Your task to perform on an android device: change the clock display to analog Image 0: 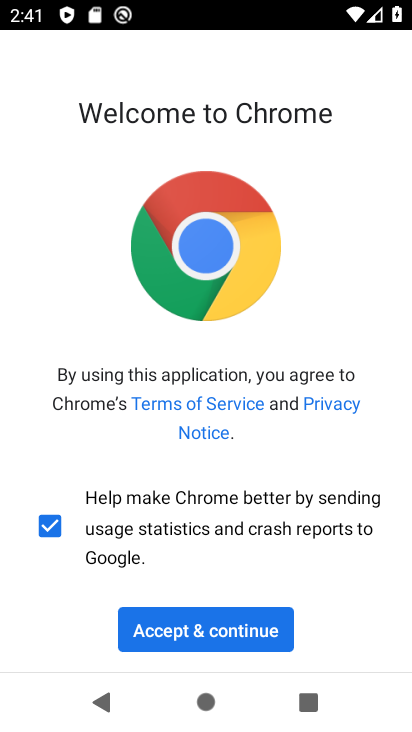
Step 0: click (257, 641)
Your task to perform on an android device: change the clock display to analog Image 1: 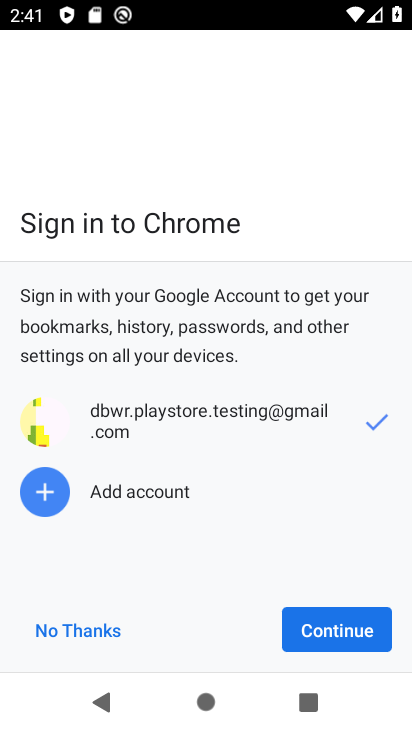
Step 1: press home button
Your task to perform on an android device: change the clock display to analog Image 2: 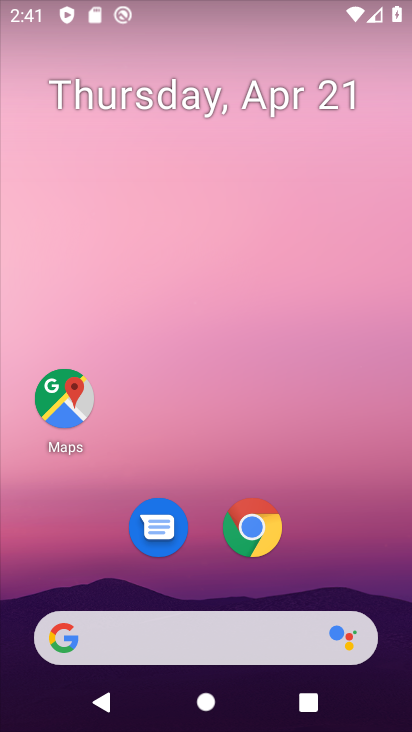
Step 2: drag from (322, 575) to (299, 149)
Your task to perform on an android device: change the clock display to analog Image 3: 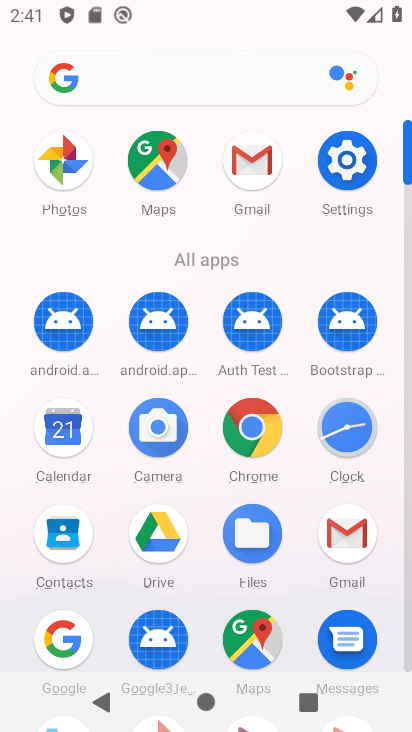
Step 3: click (364, 440)
Your task to perform on an android device: change the clock display to analog Image 4: 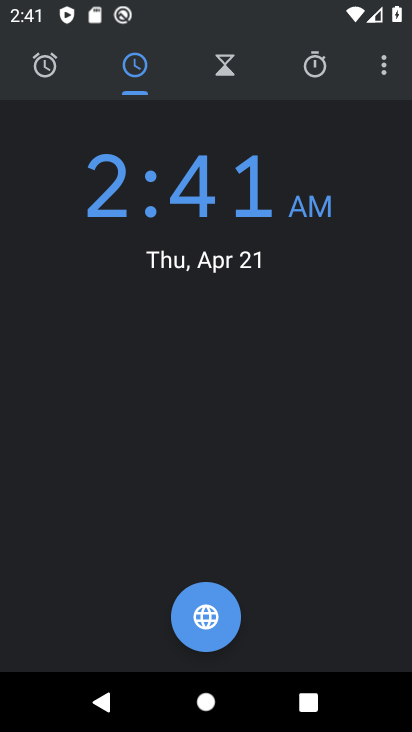
Step 4: click (383, 78)
Your task to perform on an android device: change the clock display to analog Image 5: 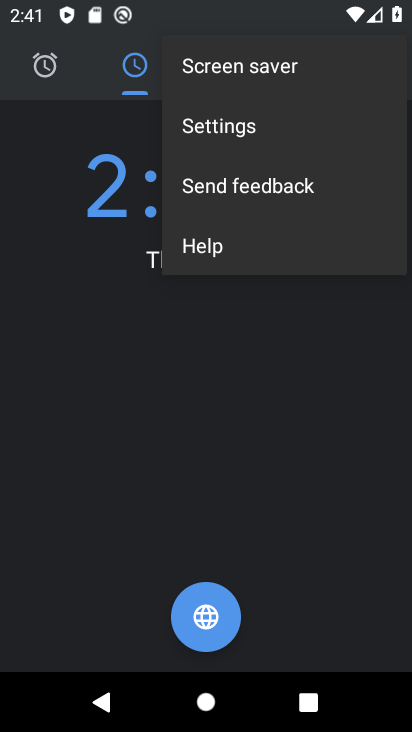
Step 5: click (318, 126)
Your task to perform on an android device: change the clock display to analog Image 6: 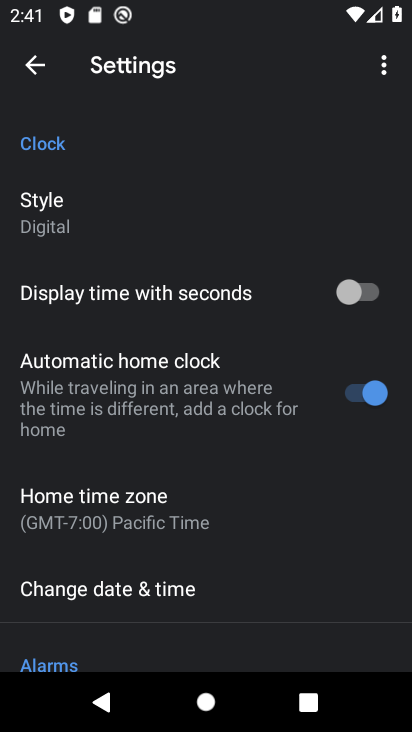
Step 6: click (157, 208)
Your task to perform on an android device: change the clock display to analog Image 7: 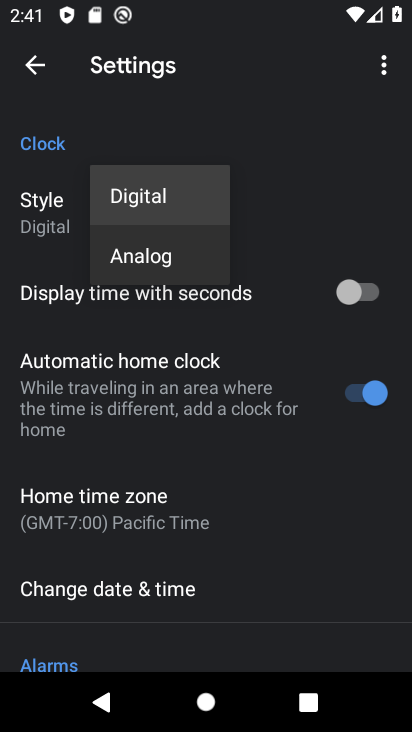
Step 7: click (164, 267)
Your task to perform on an android device: change the clock display to analog Image 8: 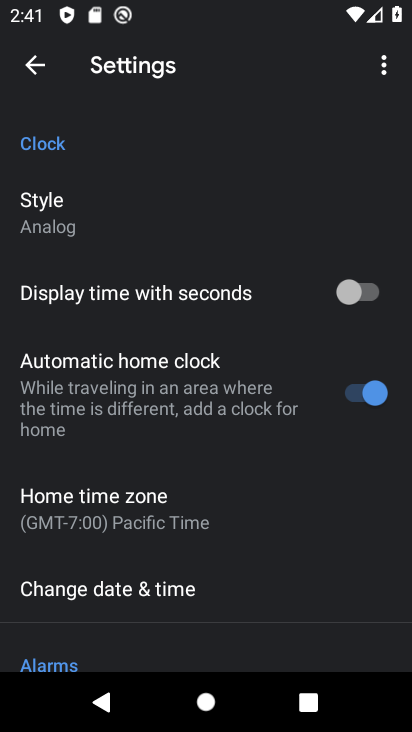
Step 8: task complete